Your task to perform on an android device: check data usage Image 0: 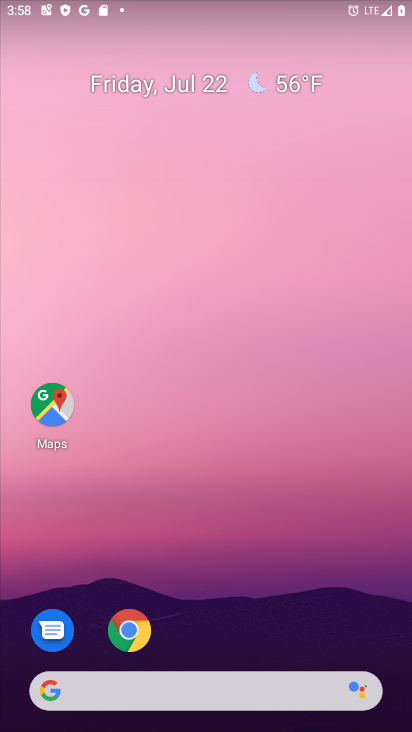
Step 0: drag from (215, 649) to (183, 89)
Your task to perform on an android device: check data usage Image 1: 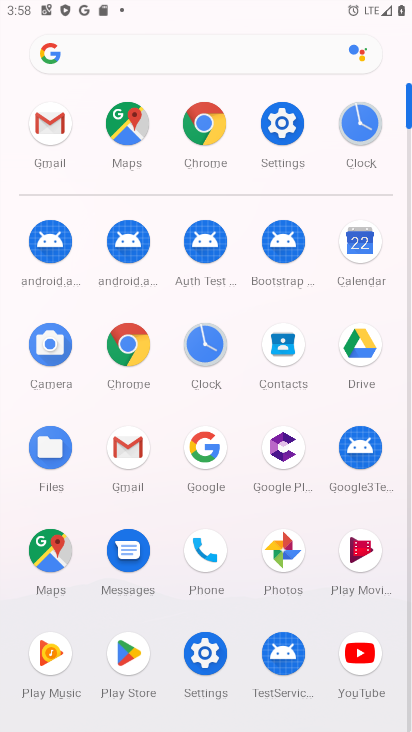
Step 1: click (294, 126)
Your task to perform on an android device: check data usage Image 2: 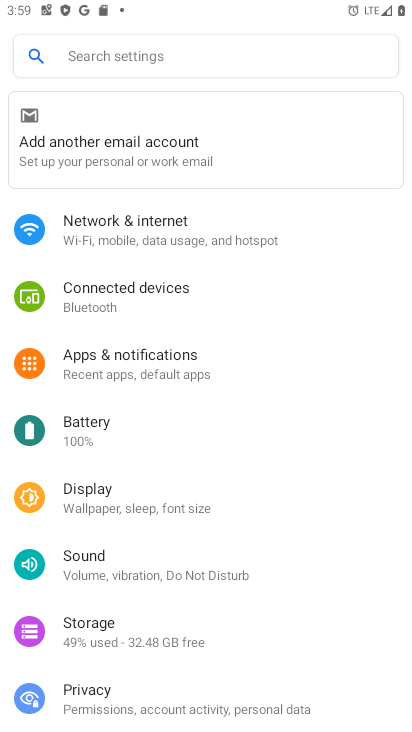
Step 2: click (148, 238)
Your task to perform on an android device: check data usage Image 3: 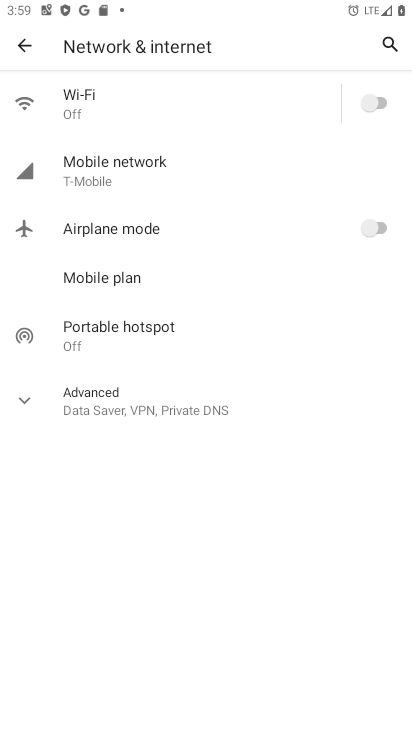
Step 3: click (119, 181)
Your task to perform on an android device: check data usage Image 4: 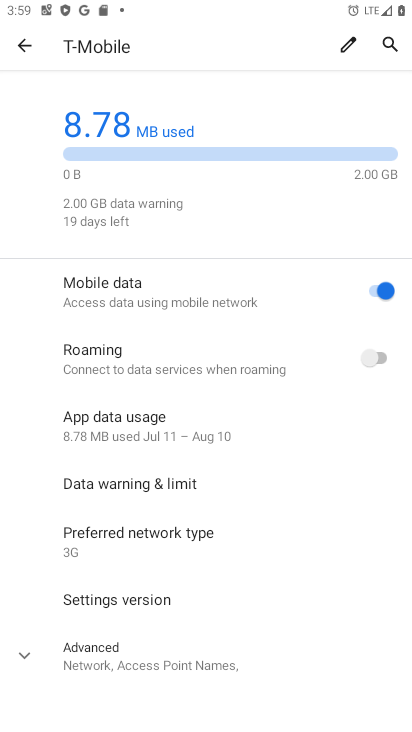
Step 4: task complete